Your task to perform on an android device: choose inbox layout in the gmail app Image 0: 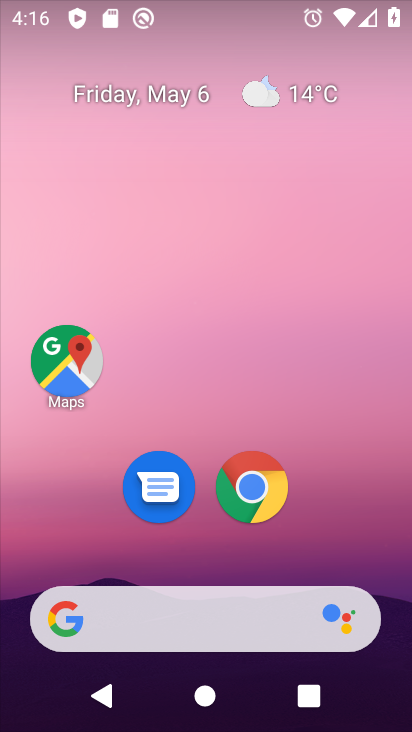
Step 0: drag from (197, 581) to (328, 0)
Your task to perform on an android device: choose inbox layout in the gmail app Image 1: 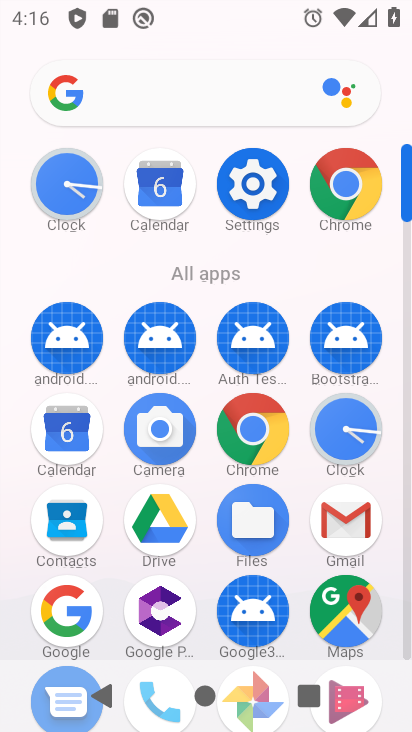
Step 1: click (353, 513)
Your task to perform on an android device: choose inbox layout in the gmail app Image 2: 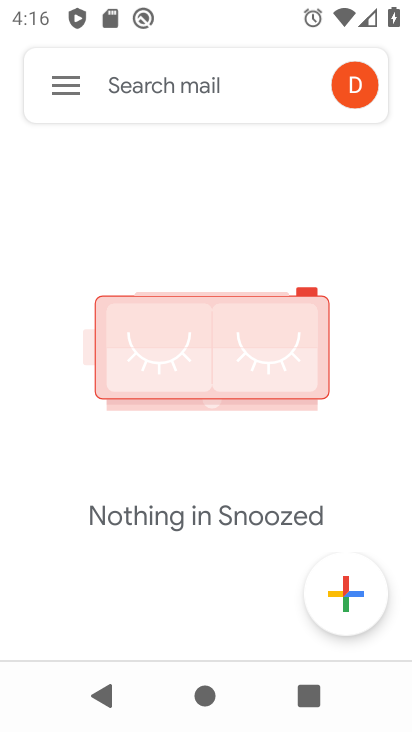
Step 2: click (94, 103)
Your task to perform on an android device: choose inbox layout in the gmail app Image 3: 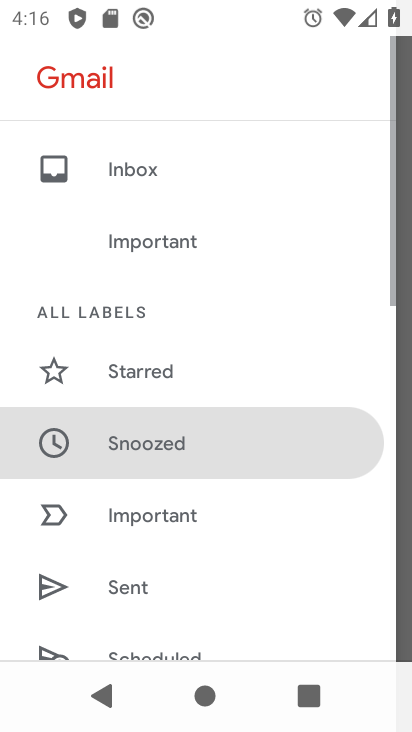
Step 3: drag from (228, 555) to (189, 191)
Your task to perform on an android device: choose inbox layout in the gmail app Image 4: 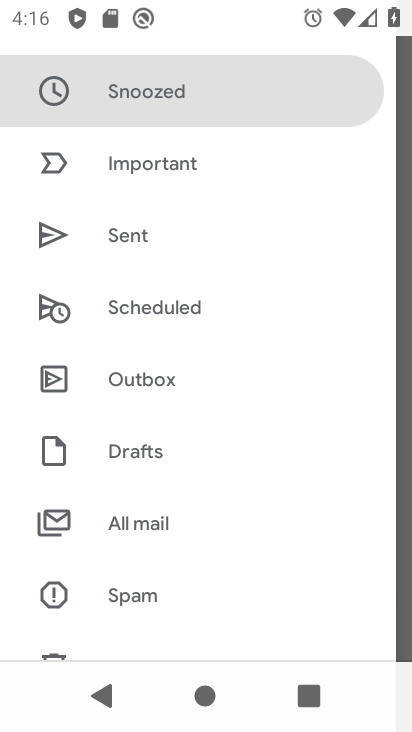
Step 4: drag from (191, 565) to (132, 228)
Your task to perform on an android device: choose inbox layout in the gmail app Image 5: 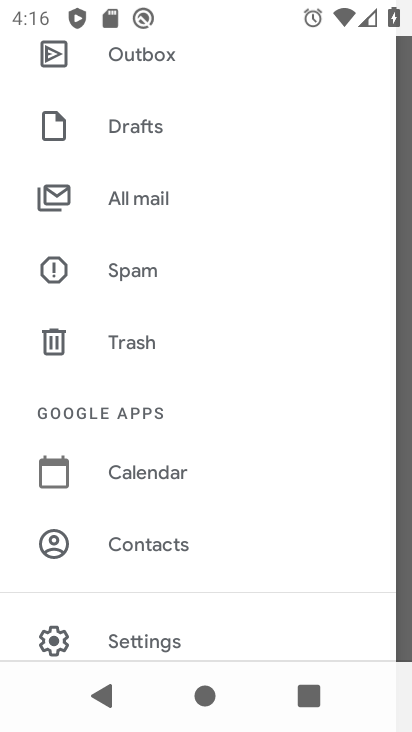
Step 5: click (156, 620)
Your task to perform on an android device: choose inbox layout in the gmail app Image 6: 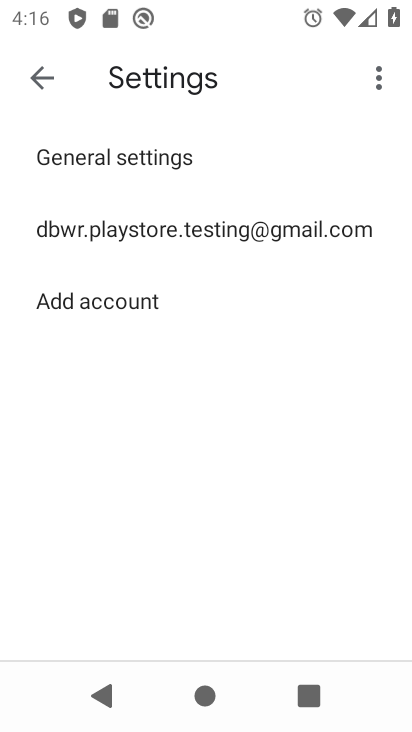
Step 6: click (135, 226)
Your task to perform on an android device: choose inbox layout in the gmail app Image 7: 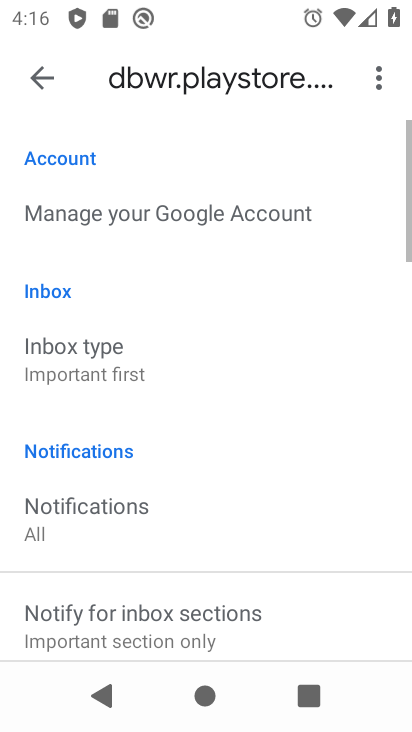
Step 7: click (141, 355)
Your task to perform on an android device: choose inbox layout in the gmail app Image 8: 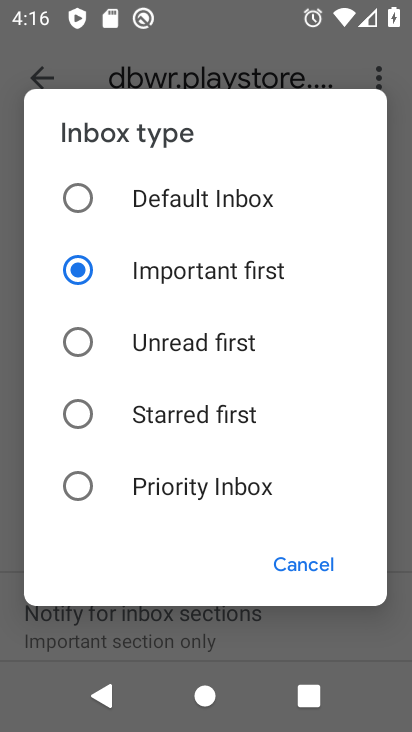
Step 8: click (158, 216)
Your task to perform on an android device: choose inbox layout in the gmail app Image 9: 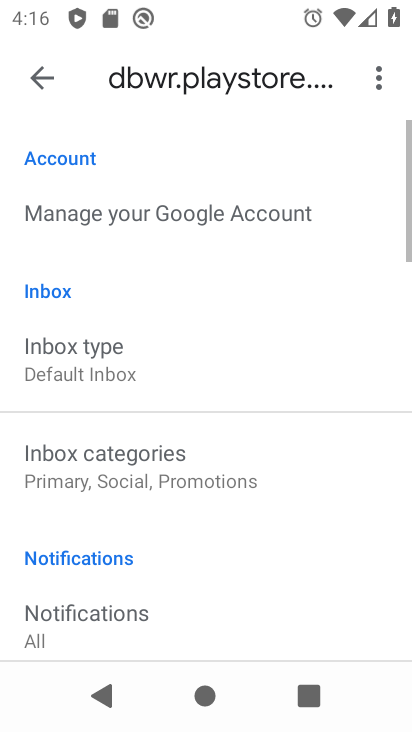
Step 9: task complete